Your task to perform on an android device: Search for vegetarian restaurants on Maps Image 0: 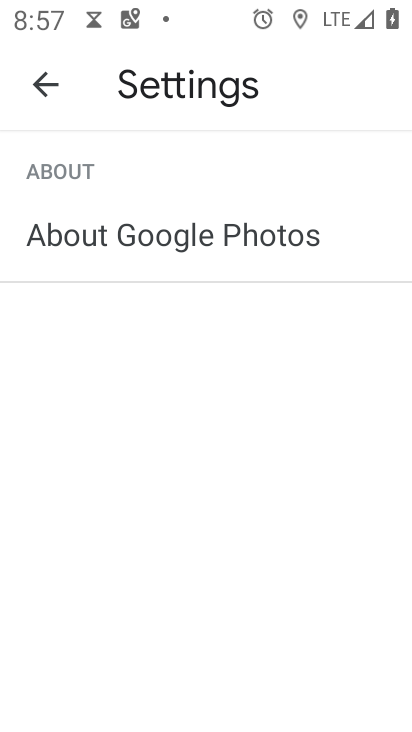
Step 0: press home button
Your task to perform on an android device: Search for vegetarian restaurants on Maps Image 1: 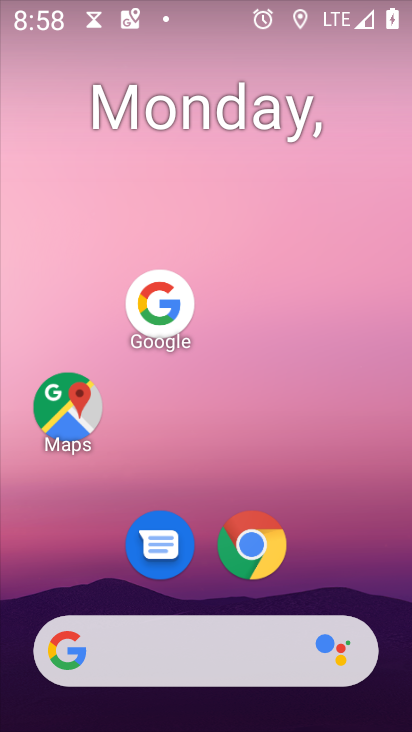
Step 1: click (70, 419)
Your task to perform on an android device: Search for vegetarian restaurants on Maps Image 2: 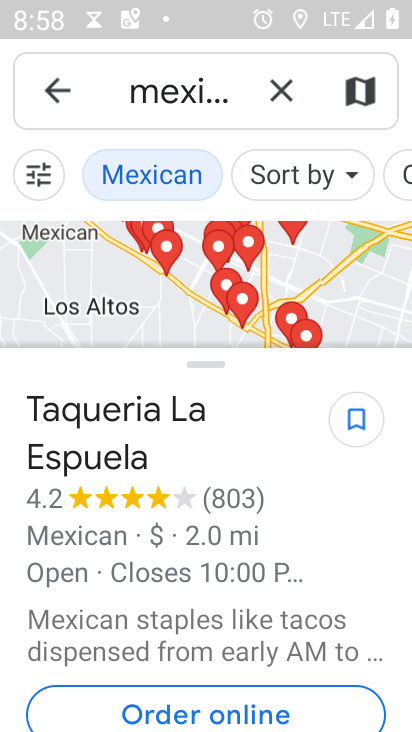
Step 2: click (283, 85)
Your task to perform on an android device: Search for vegetarian restaurants on Maps Image 3: 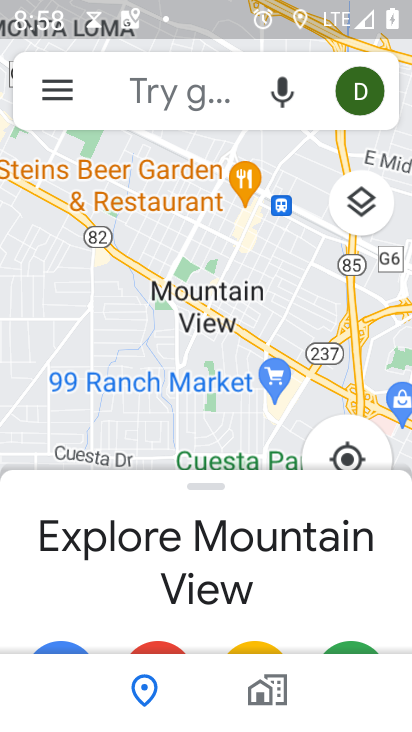
Step 3: click (187, 80)
Your task to perform on an android device: Search for vegetarian restaurants on Maps Image 4: 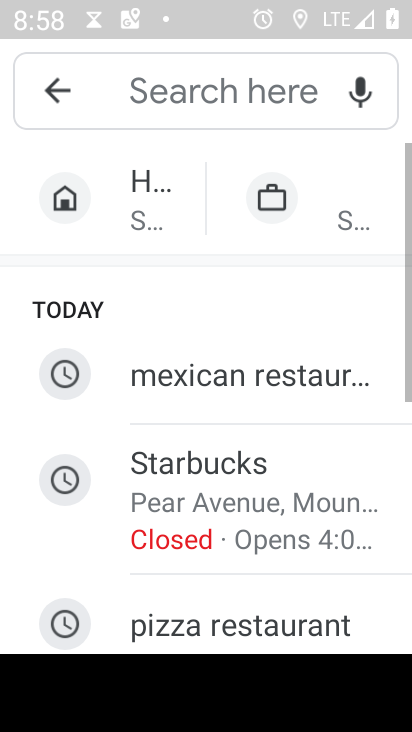
Step 4: drag from (254, 572) to (365, 137)
Your task to perform on an android device: Search for vegetarian restaurants on Maps Image 5: 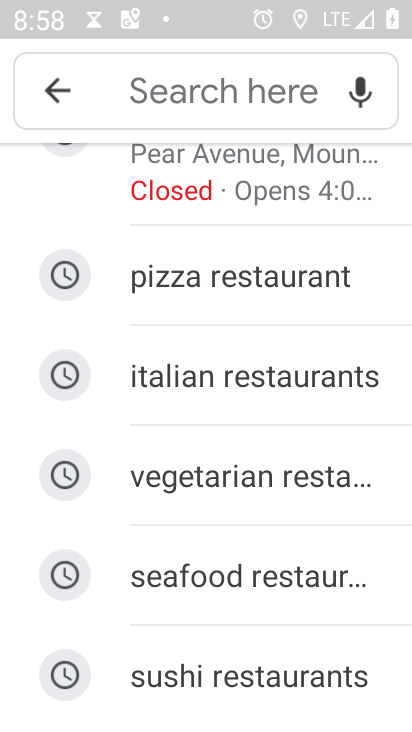
Step 5: click (242, 489)
Your task to perform on an android device: Search for vegetarian restaurants on Maps Image 6: 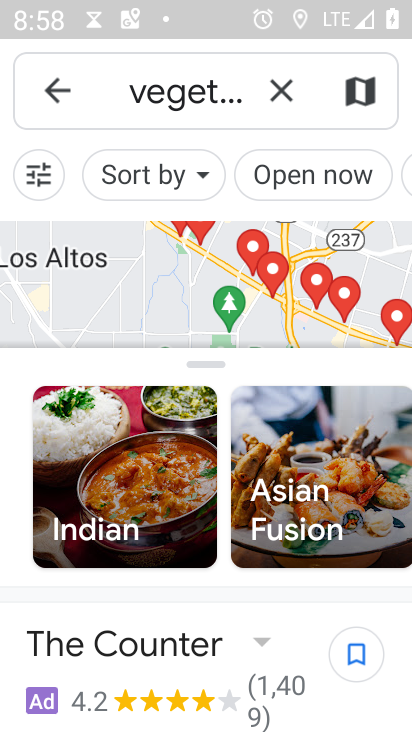
Step 6: task complete